Your task to perform on an android device: choose inbox layout in the gmail app Image 0: 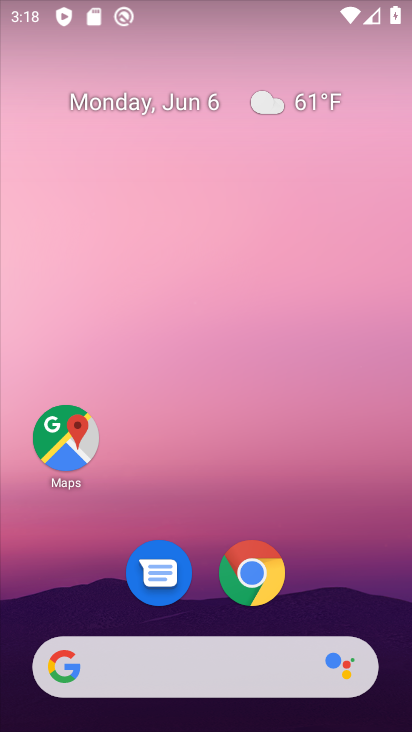
Step 0: drag from (297, 445) to (297, 247)
Your task to perform on an android device: choose inbox layout in the gmail app Image 1: 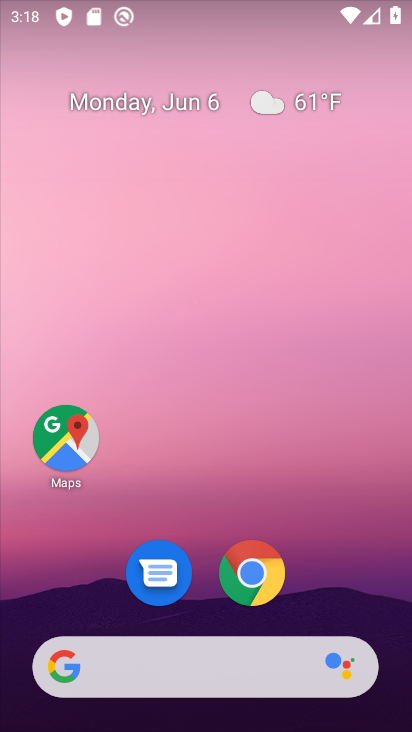
Step 1: drag from (283, 652) to (250, 89)
Your task to perform on an android device: choose inbox layout in the gmail app Image 2: 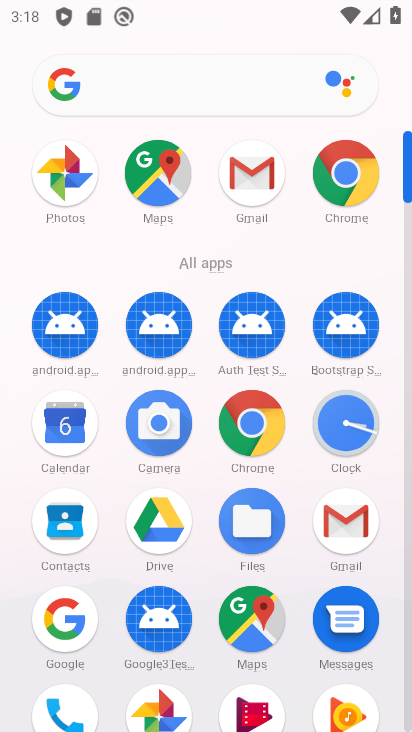
Step 2: click (362, 529)
Your task to perform on an android device: choose inbox layout in the gmail app Image 3: 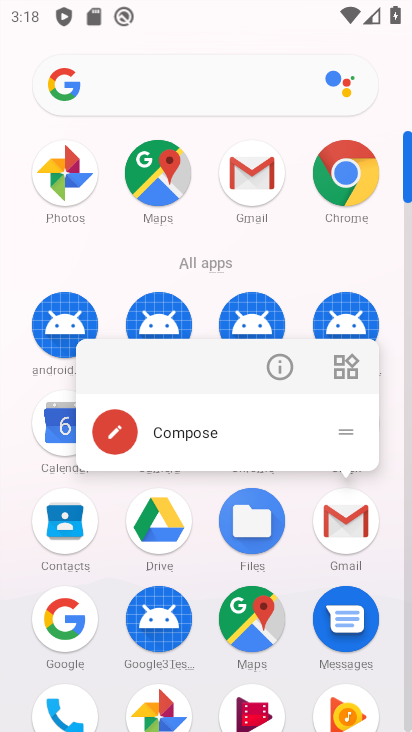
Step 3: click (362, 529)
Your task to perform on an android device: choose inbox layout in the gmail app Image 4: 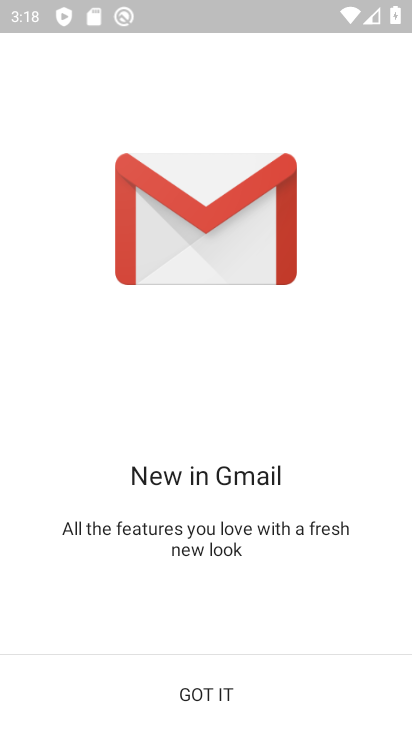
Step 4: click (177, 707)
Your task to perform on an android device: choose inbox layout in the gmail app Image 5: 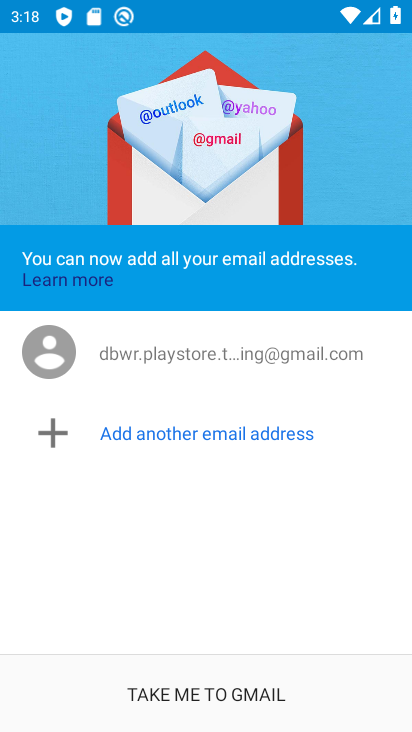
Step 5: click (177, 707)
Your task to perform on an android device: choose inbox layout in the gmail app Image 6: 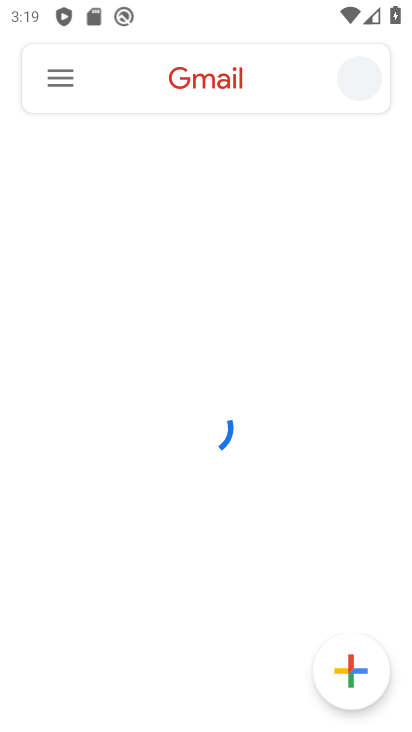
Step 6: click (59, 77)
Your task to perform on an android device: choose inbox layout in the gmail app Image 7: 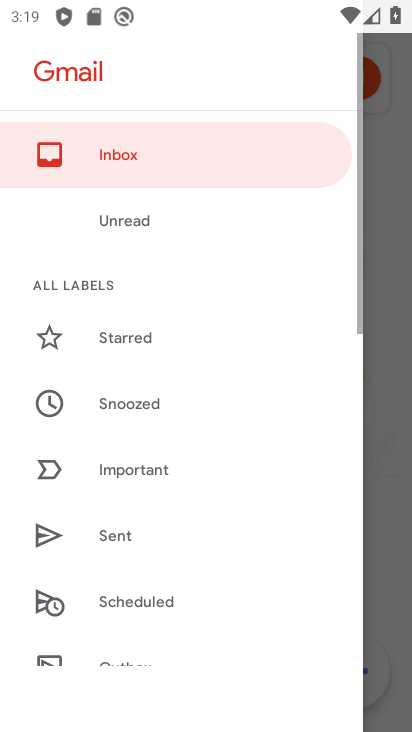
Step 7: click (138, 355)
Your task to perform on an android device: choose inbox layout in the gmail app Image 8: 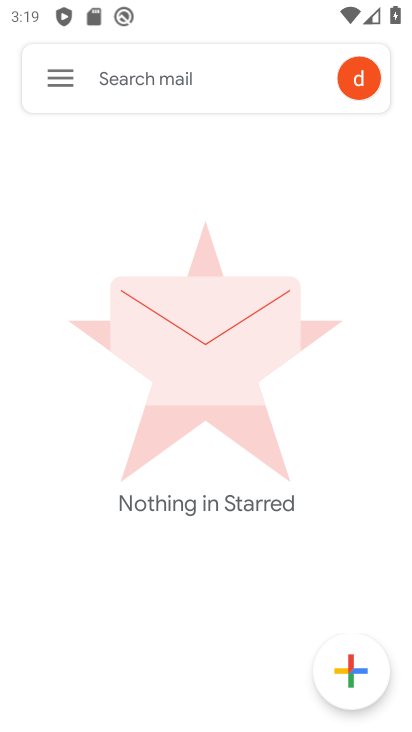
Step 8: press back button
Your task to perform on an android device: choose inbox layout in the gmail app Image 9: 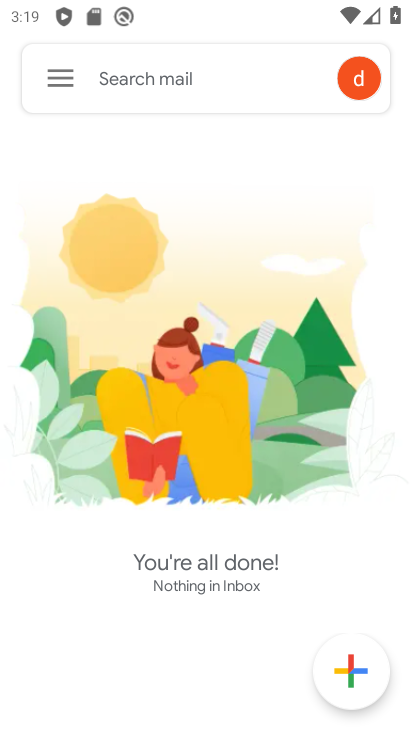
Step 9: click (63, 76)
Your task to perform on an android device: choose inbox layout in the gmail app Image 10: 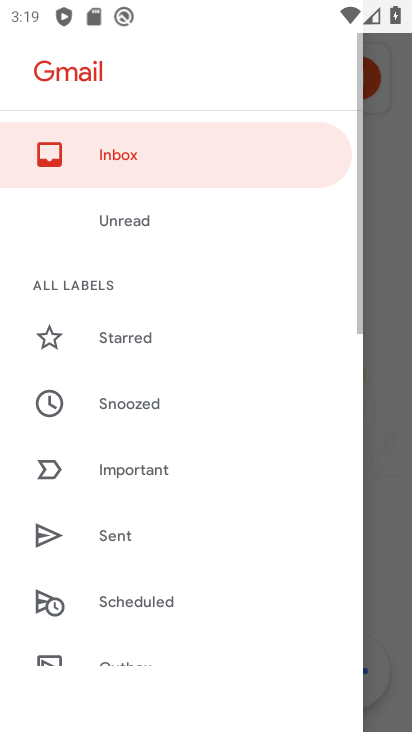
Step 10: drag from (202, 660) to (221, 250)
Your task to perform on an android device: choose inbox layout in the gmail app Image 11: 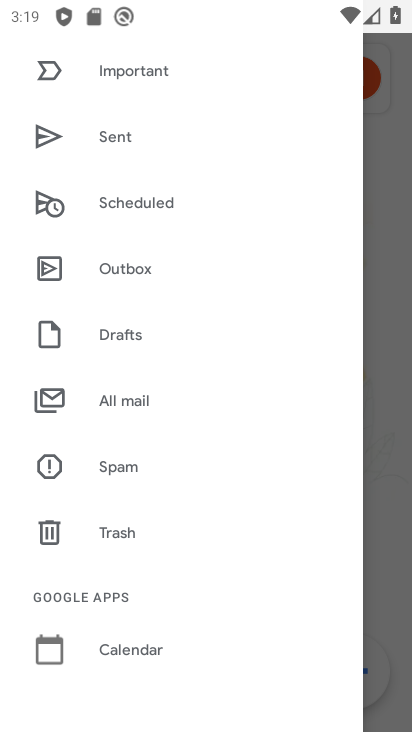
Step 11: drag from (225, 665) to (224, 287)
Your task to perform on an android device: choose inbox layout in the gmail app Image 12: 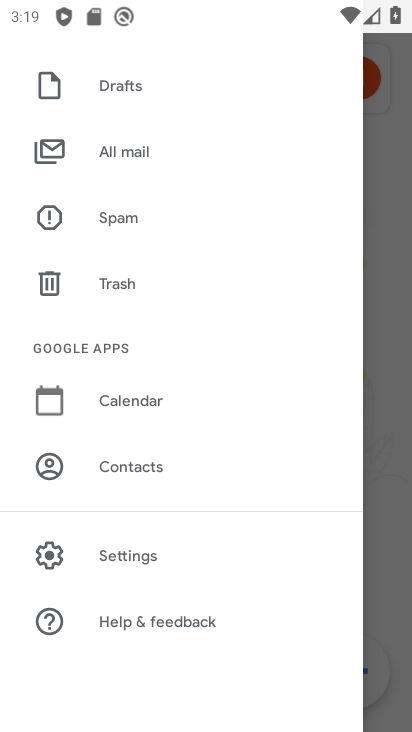
Step 12: click (133, 550)
Your task to perform on an android device: choose inbox layout in the gmail app Image 13: 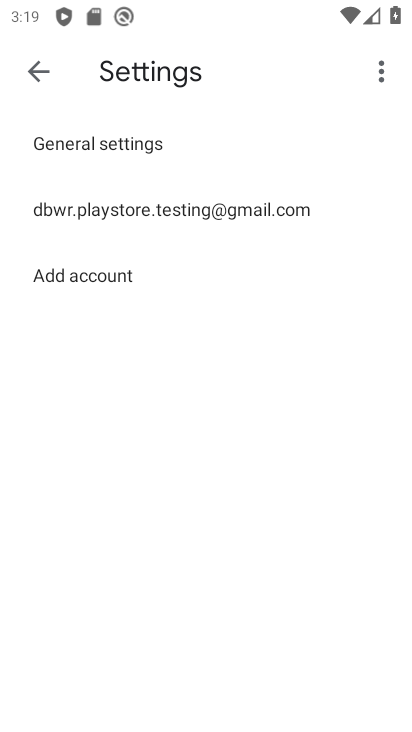
Step 13: click (108, 205)
Your task to perform on an android device: choose inbox layout in the gmail app Image 14: 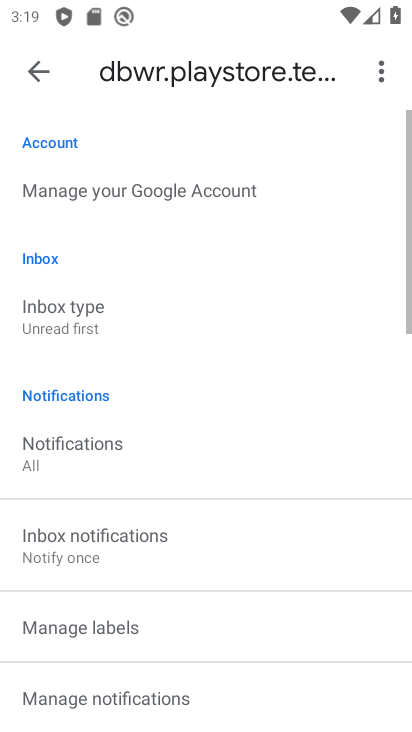
Step 14: click (70, 316)
Your task to perform on an android device: choose inbox layout in the gmail app Image 15: 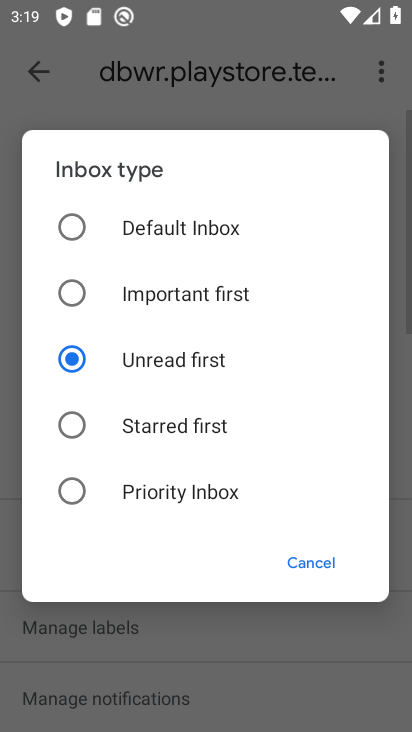
Step 15: click (154, 489)
Your task to perform on an android device: choose inbox layout in the gmail app Image 16: 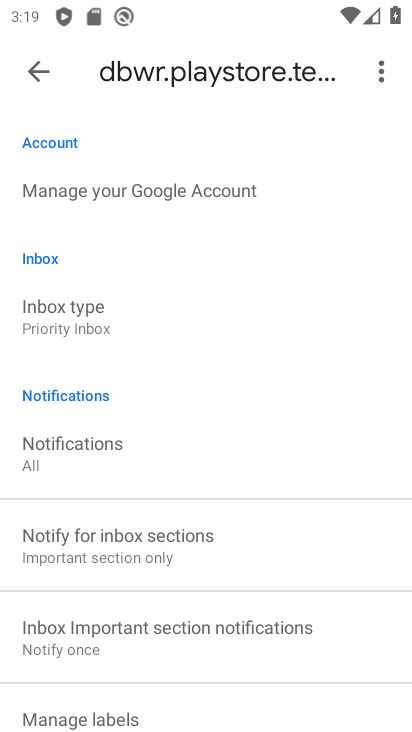
Step 16: task complete